Your task to perform on an android device: Open calendar and show me the first week of next month Image 0: 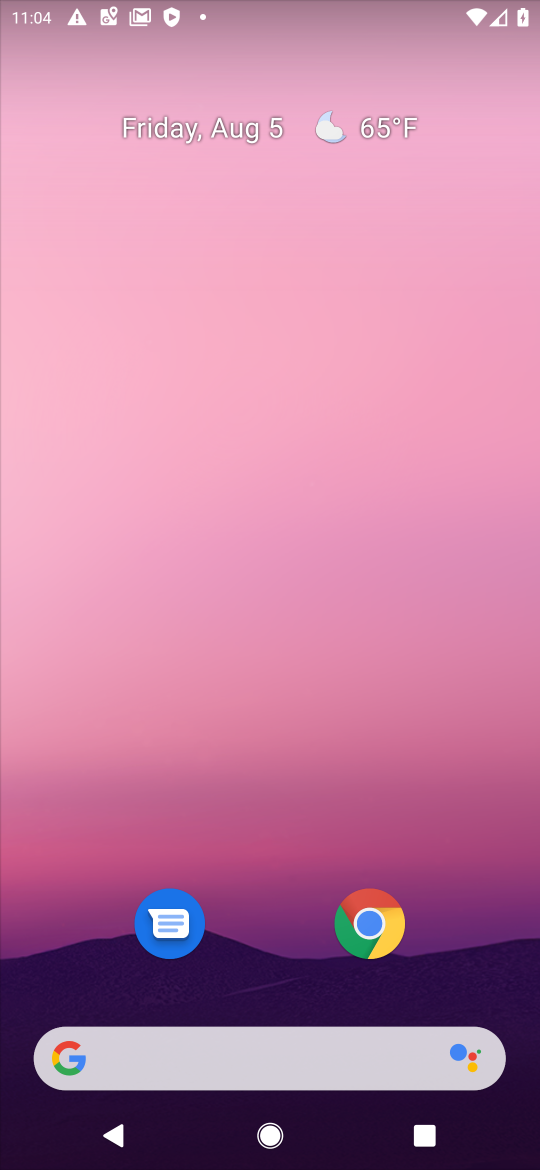
Step 0: drag from (232, 1044) to (464, 63)
Your task to perform on an android device: Open calendar and show me the first week of next month Image 1: 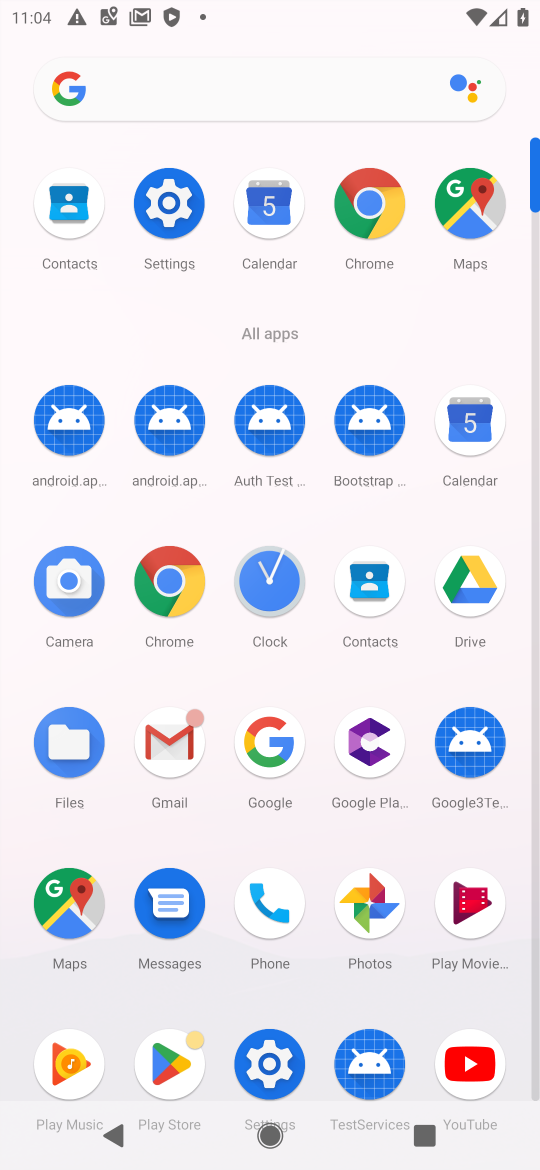
Step 1: click (483, 417)
Your task to perform on an android device: Open calendar and show me the first week of next month Image 2: 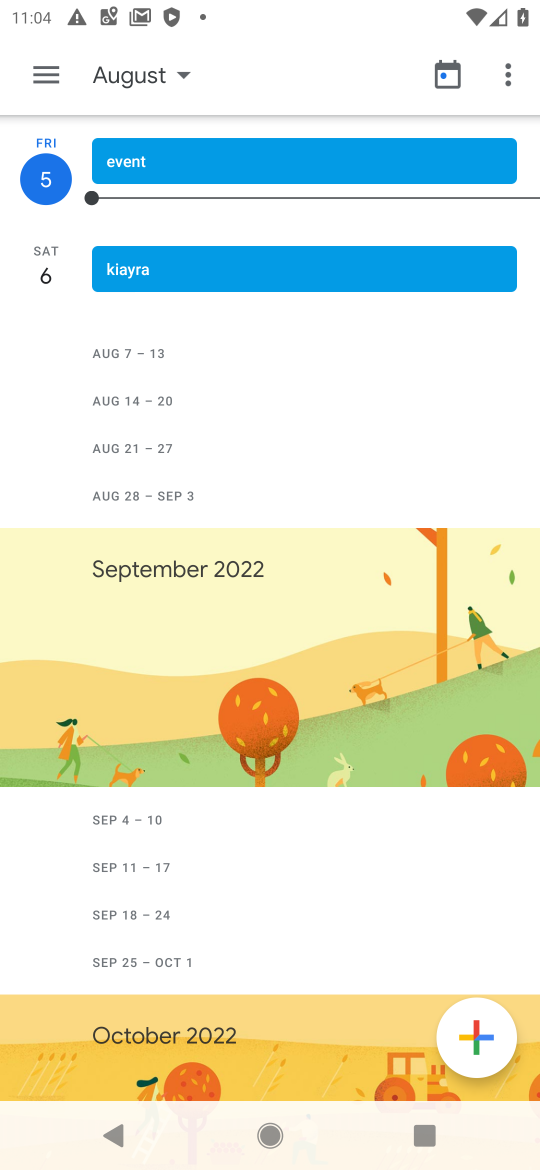
Step 2: click (176, 76)
Your task to perform on an android device: Open calendar and show me the first week of next month Image 3: 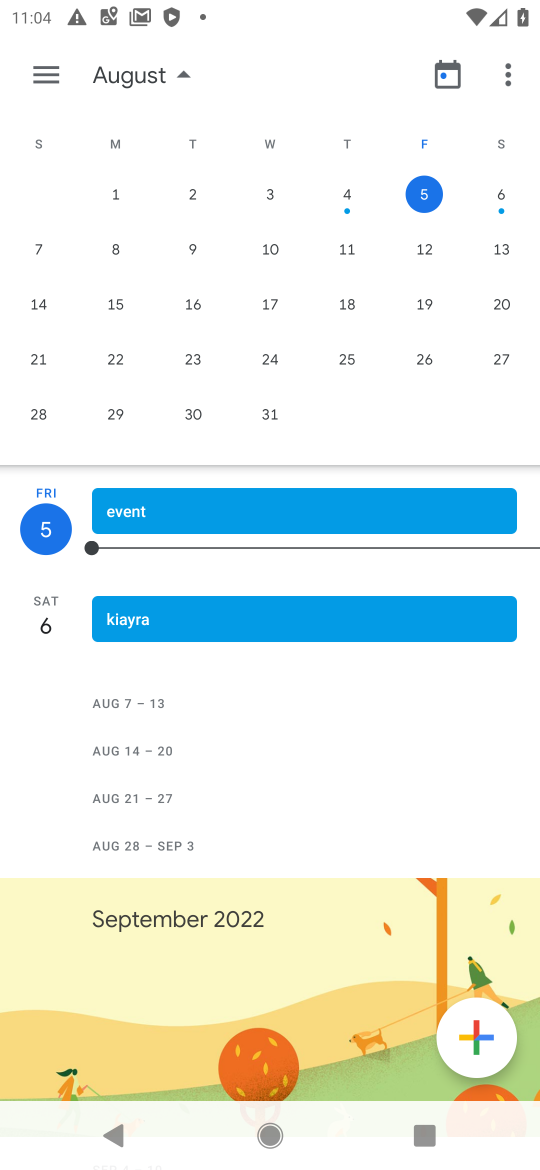
Step 3: drag from (481, 270) to (0, 292)
Your task to perform on an android device: Open calendar and show me the first week of next month Image 4: 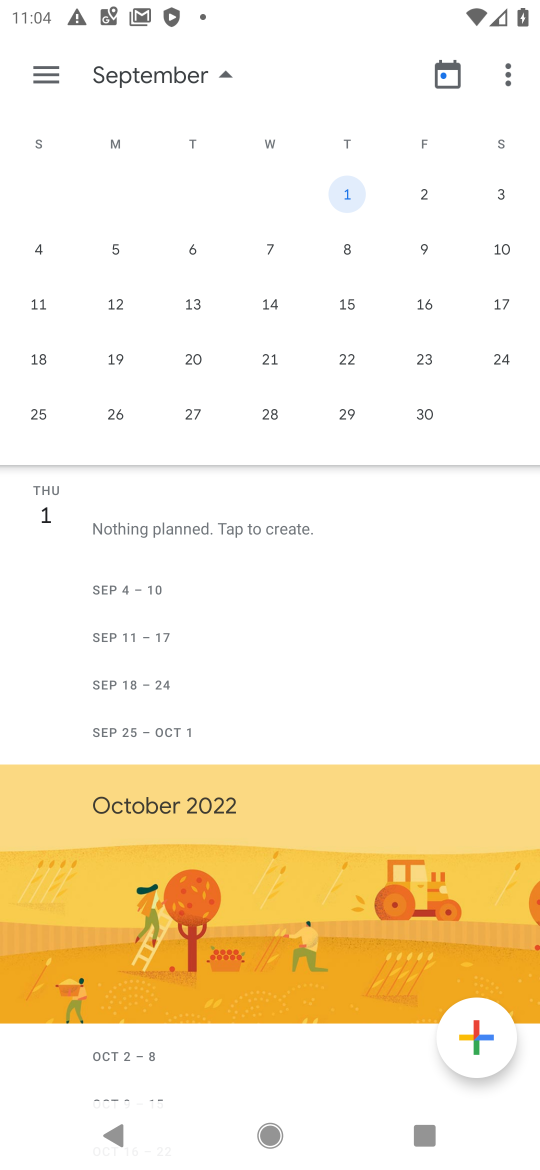
Step 4: click (433, 190)
Your task to perform on an android device: Open calendar and show me the first week of next month Image 5: 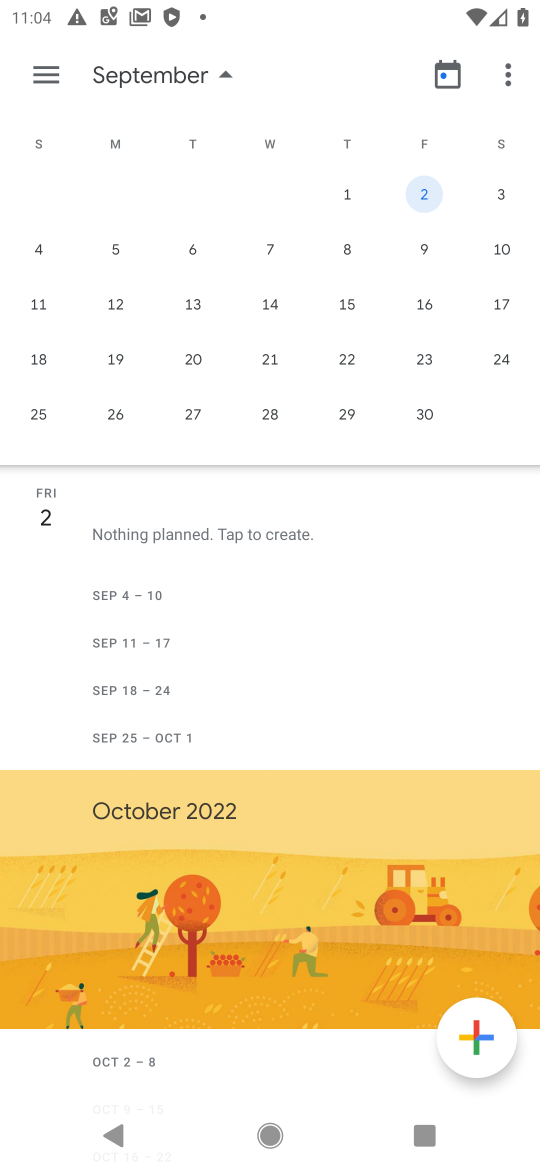
Step 5: task complete